Your task to perform on an android device: toggle data saver in the chrome app Image 0: 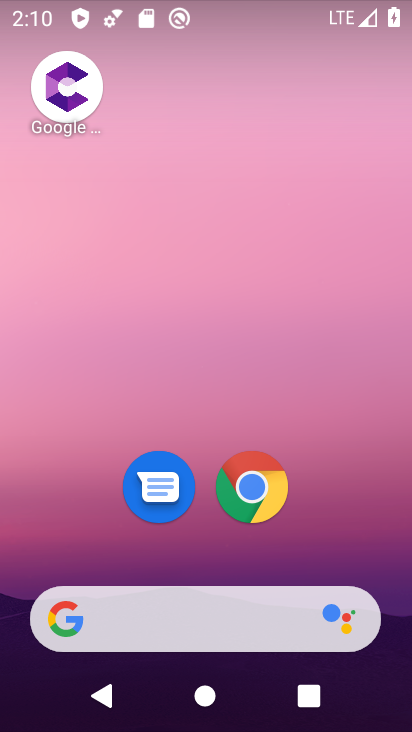
Step 0: click (253, 483)
Your task to perform on an android device: toggle data saver in the chrome app Image 1: 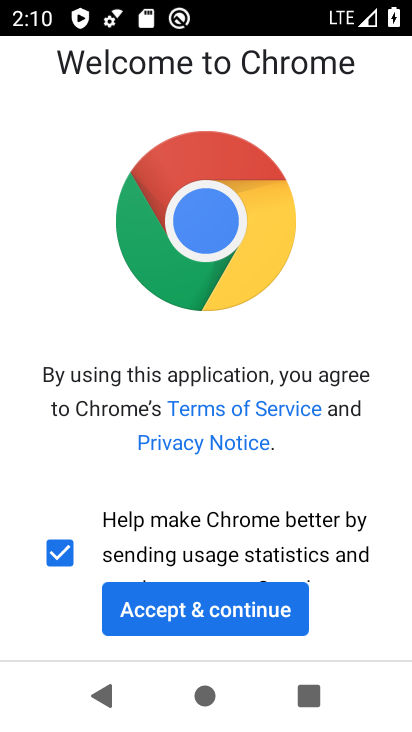
Step 1: click (233, 610)
Your task to perform on an android device: toggle data saver in the chrome app Image 2: 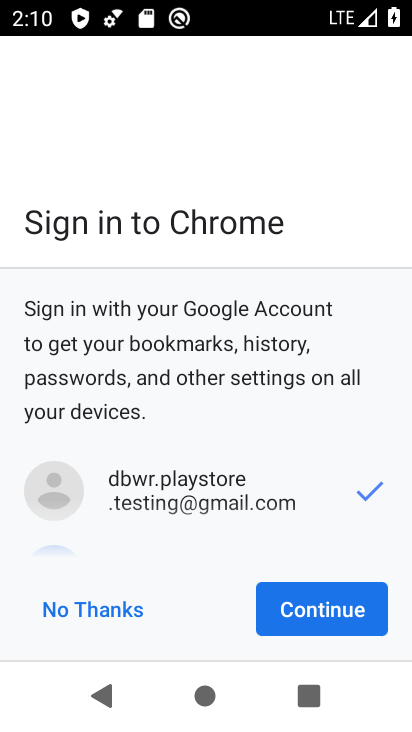
Step 2: click (295, 610)
Your task to perform on an android device: toggle data saver in the chrome app Image 3: 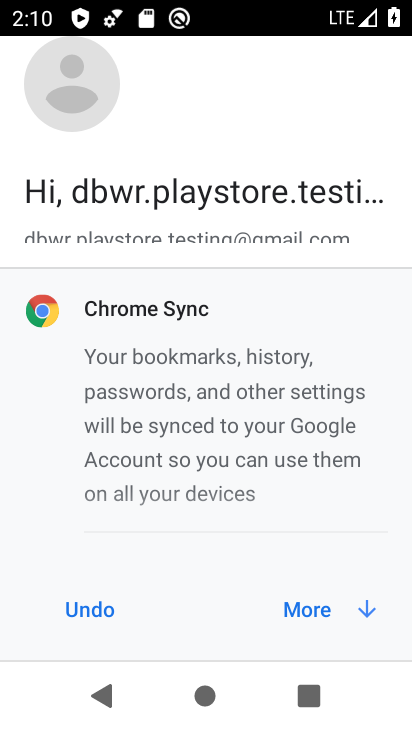
Step 3: click (355, 603)
Your task to perform on an android device: toggle data saver in the chrome app Image 4: 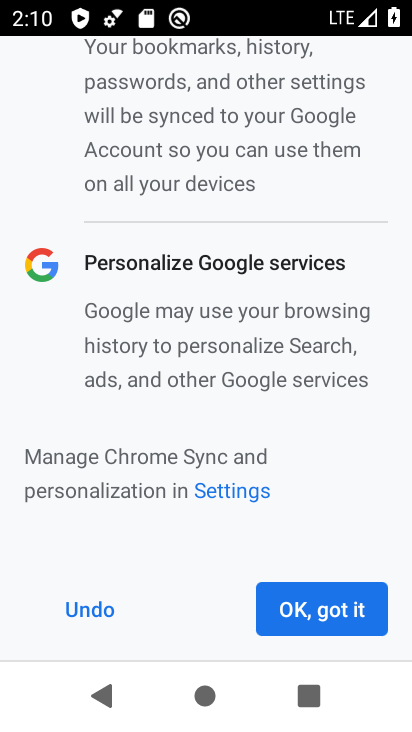
Step 4: click (355, 603)
Your task to perform on an android device: toggle data saver in the chrome app Image 5: 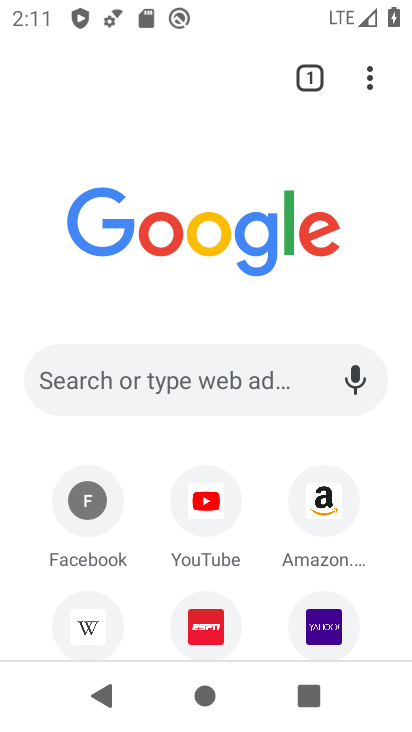
Step 5: click (364, 78)
Your task to perform on an android device: toggle data saver in the chrome app Image 6: 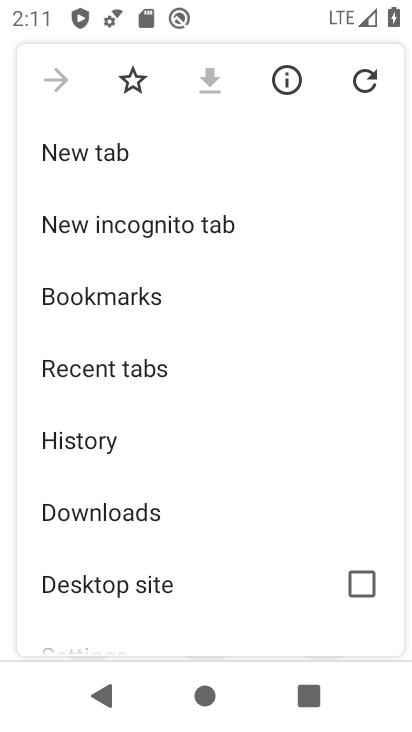
Step 6: drag from (208, 574) to (227, 245)
Your task to perform on an android device: toggle data saver in the chrome app Image 7: 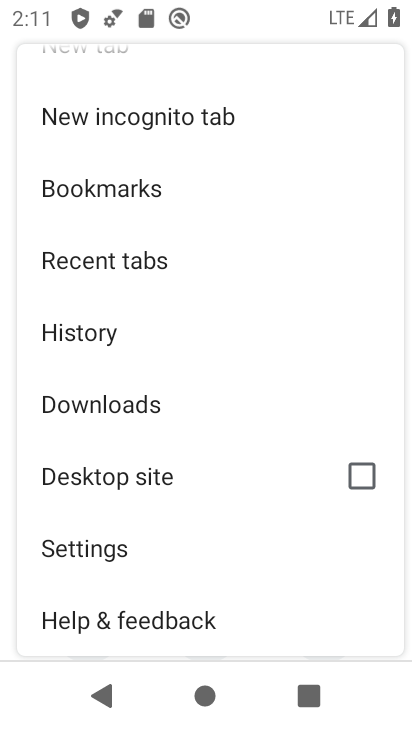
Step 7: click (102, 556)
Your task to perform on an android device: toggle data saver in the chrome app Image 8: 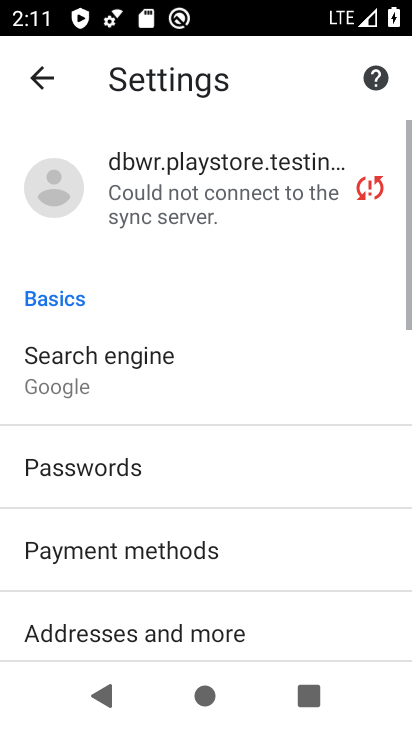
Step 8: drag from (276, 543) to (263, 150)
Your task to perform on an android device: toggle data saver in the chrome app Image 9: 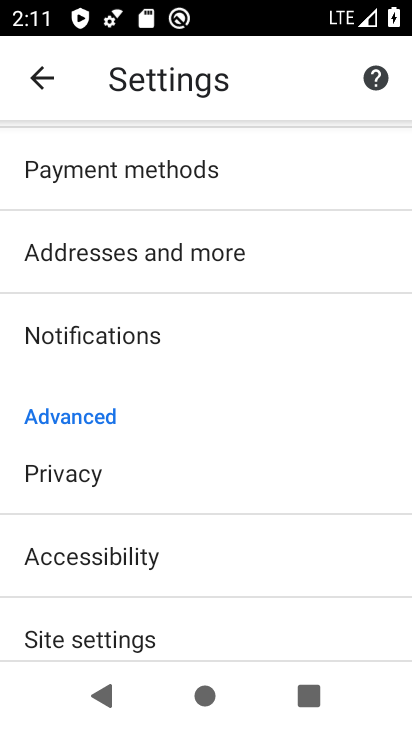
Step 9: drag from (177, 605) to (176, 473)
Your task to perform on an android device: toggle data saver in the chrome app Image 10: 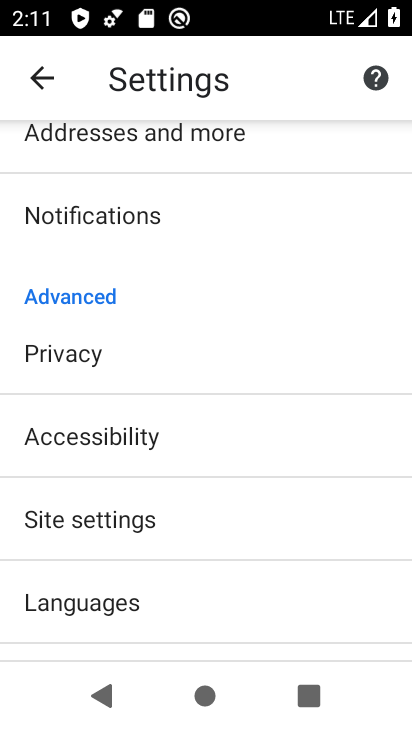
Step 10: drag from (125, 420) to (142, 260)
Your task to perform on an android device: toggle data saver in the chrome app Image 11: 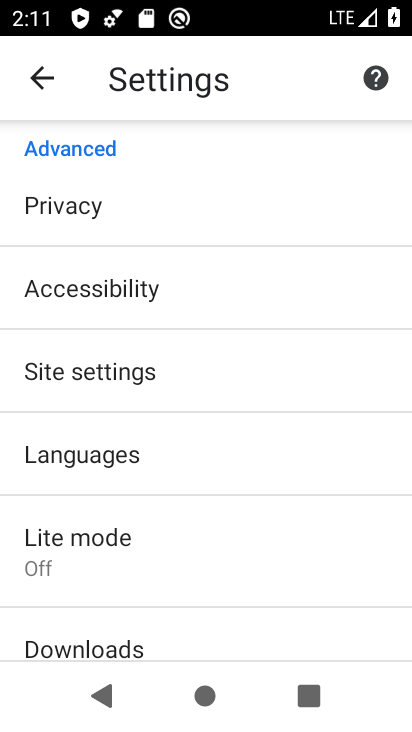
Step 11: click (101, 552)
Your task to perform on an android device: toggle data saver in the chrome app Image 12: 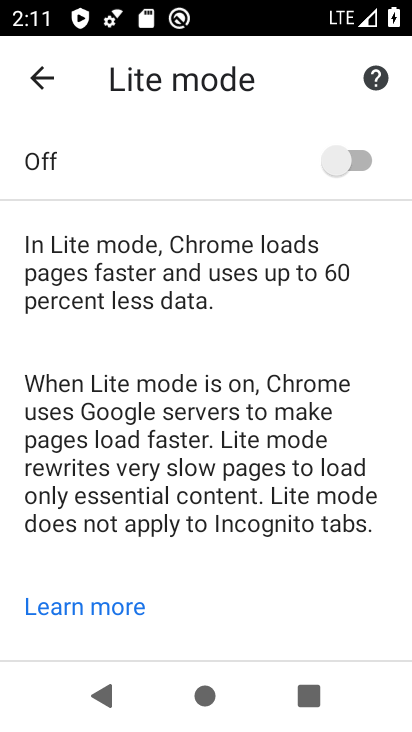
Step 12: task complete